Your task to perform on an android device: toggle notifications settings in the gmail app Image 0: 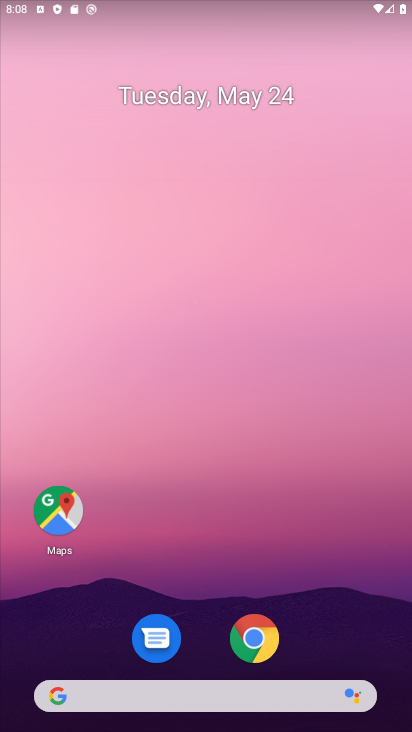
Step 0: drag from (224, 730) to (41, 586)
Your task to perform on an android device: toggle notifications settings in the gmail app Image 1: 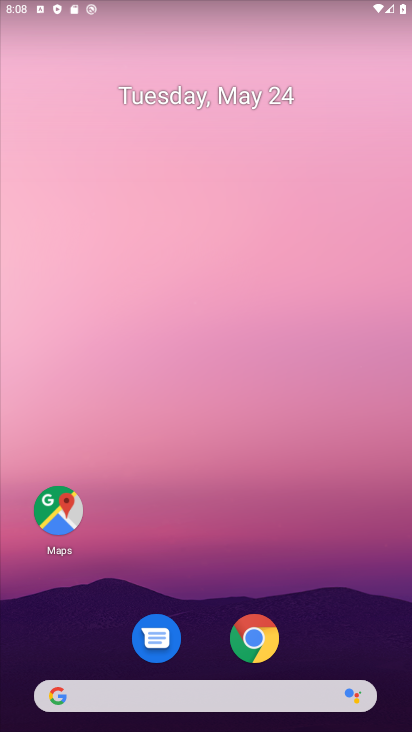
Step 1: drag from (69, 722) to (82, 0)
Your task to perform on an android device: toggle notifications settings in the gmail app Image 2: 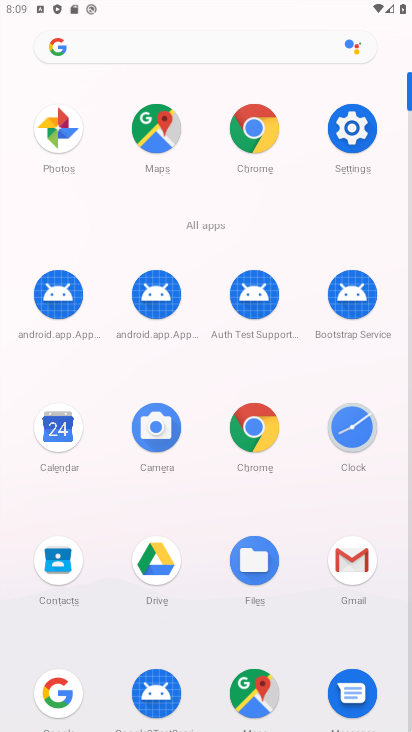
Step 2: click (354, 566)
Your task to perform on an android device: toggle notifications settings in the gmail app Image 3: 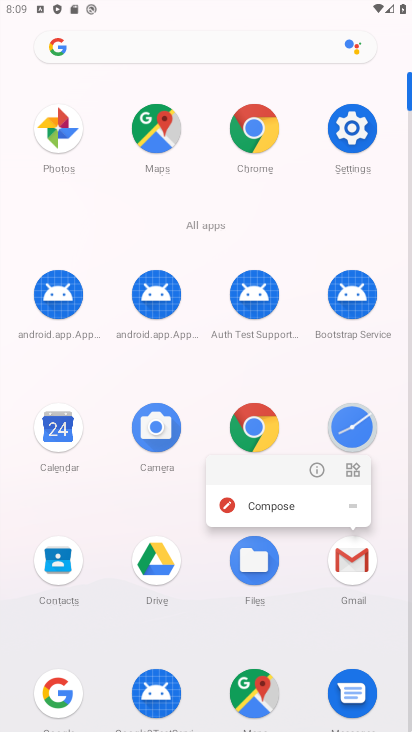
Step 3: click (323, 468)
Your task to perform on an android device: toggle notifications settings in the gmail app Image 4: 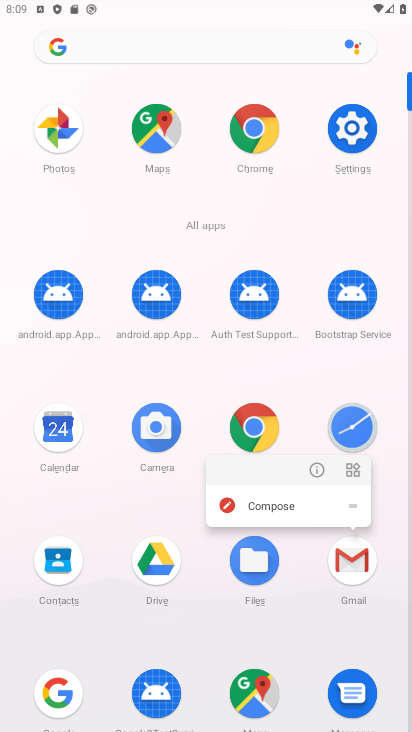
Step 4: click (318, 469)
Your task to perform on an android device: toggle notifications settings in the gmail app Image 5: 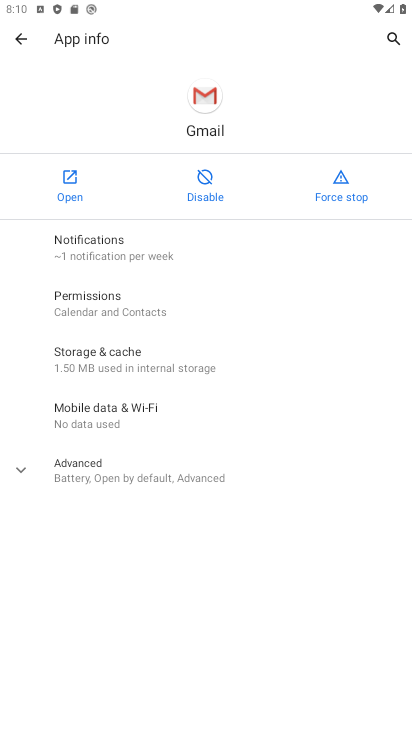
Step 5: click (226, 238)
Your task to perform on an android device: toggle notifications settings in the gmail app Image 6: 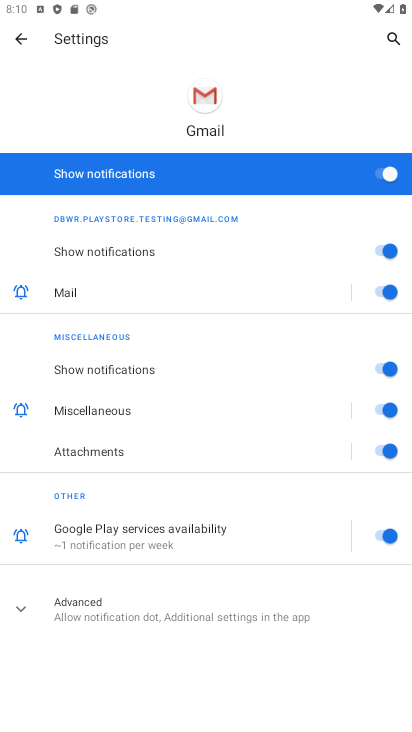
Step 6: click (389, 174)
Your task to perform on an android device: toggle notifications settings in the gmail app Image 7: 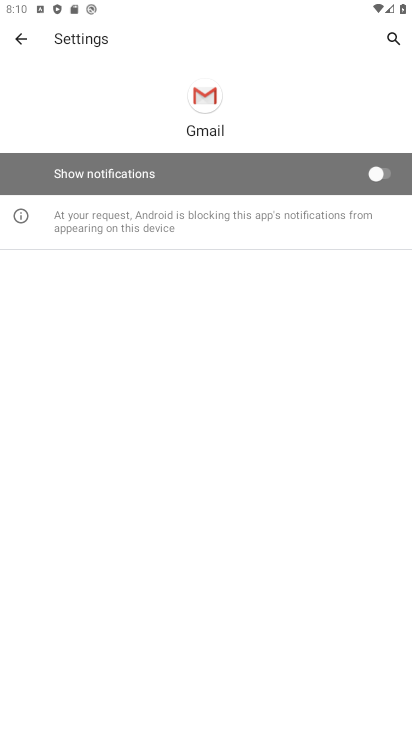
Step 7: task complete